Your task to perform on an android device: stop showing notifications on the lock screen Image 0: 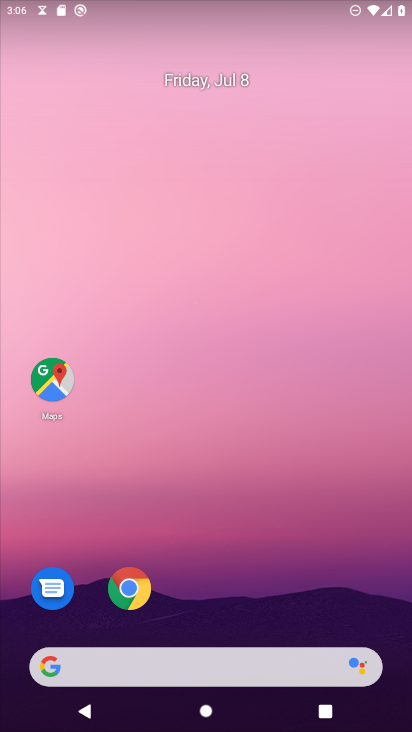
Step 0: drag from (190, 515) to (183, 131)
Your task to perform on an android device: stop showing notifications on the lock screen Image 1: 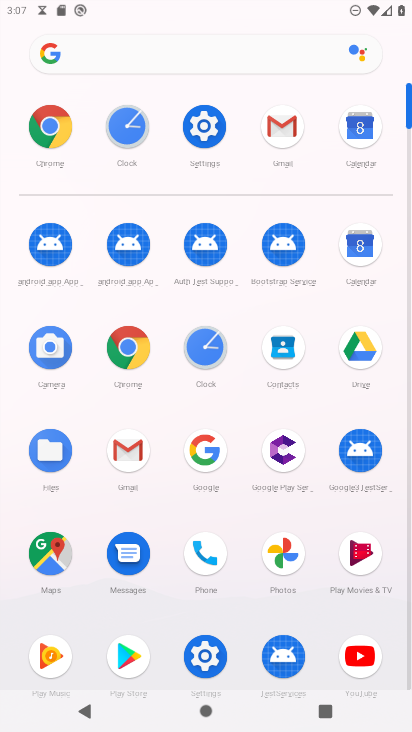
Step 1: click (202, 136)
Your task to perform on an android device: stop showing notifications on the lock screen Image 2: 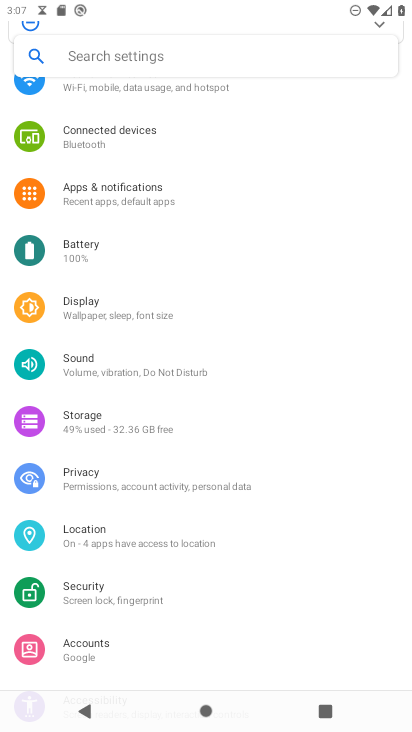
Step 2: click (137, 197)
Your task to perform on an android device: stop showing notifications on the lock screen Image 3: 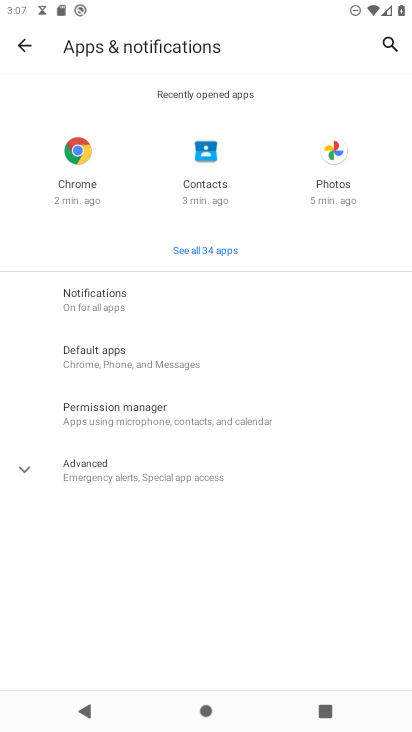
Step 3: click (95, 296)
Your task to perform on an android device: stop showing notifications on the lock screen Image 4: 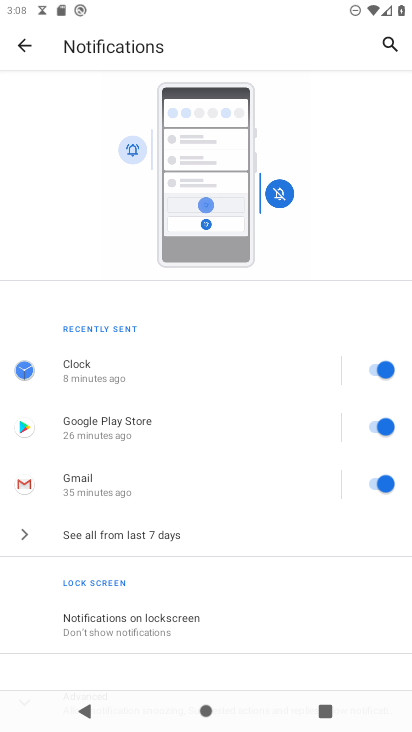
Step 4: click (123, 638)
Your task to perform on an android device: stop showing notifications on the lock screen Image 5: 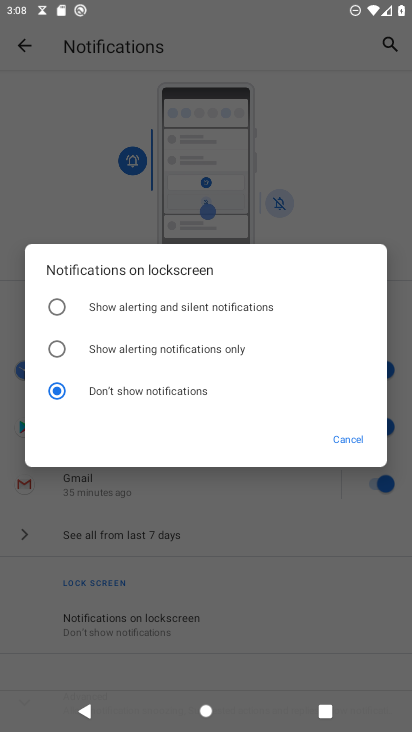
Step 5: task complete